Your task to perform on an android device: Open Google Maps Image 0: 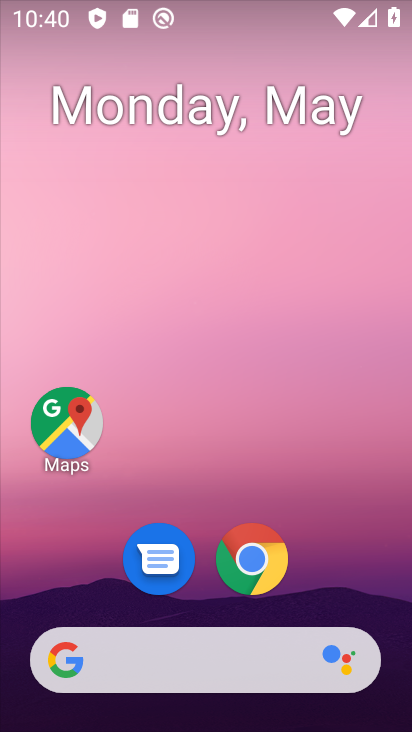
Step 0: click (62, 423)
Your task to perform on an android device: Open Google Maps Image 1: 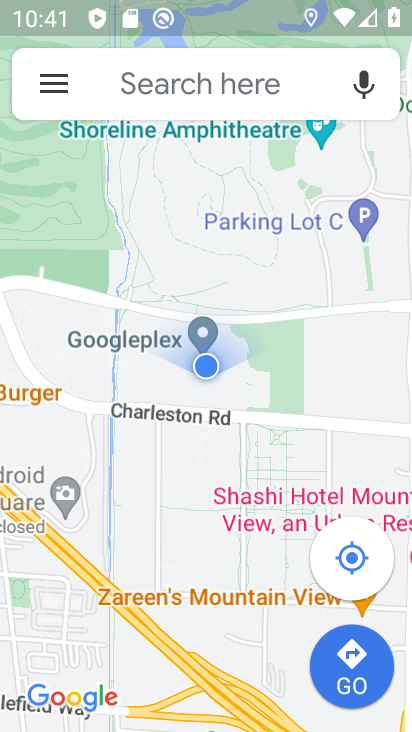
Step 1: task complete